Your task to perform on an android device: Open the calendar app, open the side menu, and click the "Day" option Image 0: 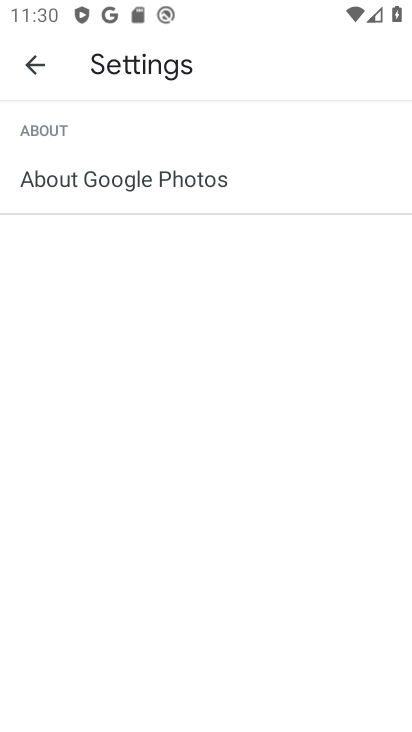
Step 0: press home button
Your task to perform on an android device: Open the calendar app, open the side menu, and click the "Day" option Image 1: 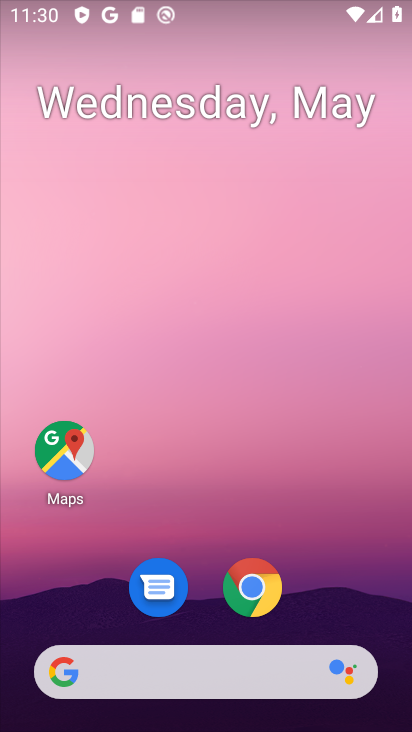
Step 1: drag from (289, 477) to (205, 9)
Your task to perform on an android device: Open the calendar app, open the side menu, and click the "Day" option Image 2: 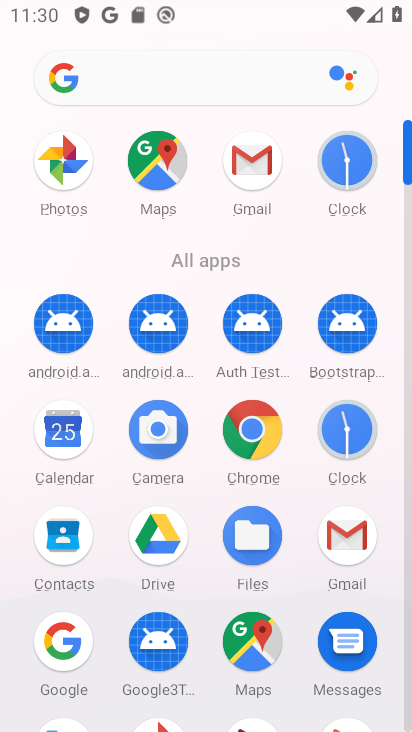
Step 2: click (74, 446)
Your task to perform on an android device: Open the calendar app, open the side menu, and click the "Day" option Image 3: 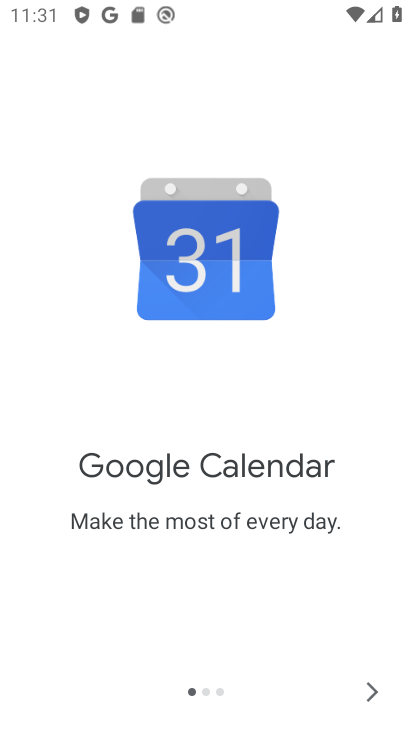
Step 3: press home button
Your task to perform on an android device: Open the calendar app, open the side menu, and click the "Day" option Image 4: 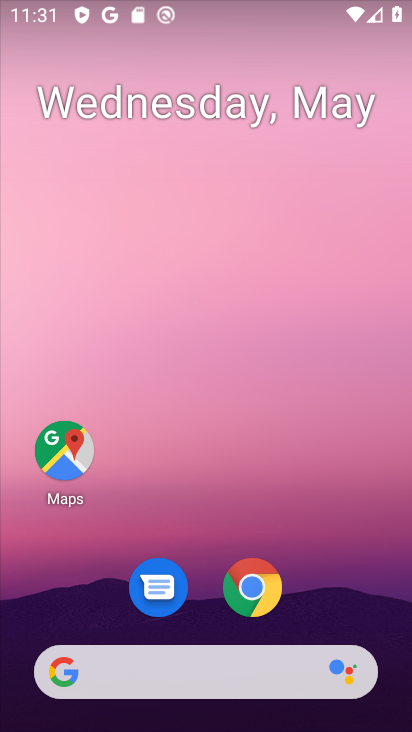
Step 4: drag from (236, 540) to (171, 6)
Your task to perform on an android device: Open the calendar app, open the side menu, and click the "Day" option Image 5: 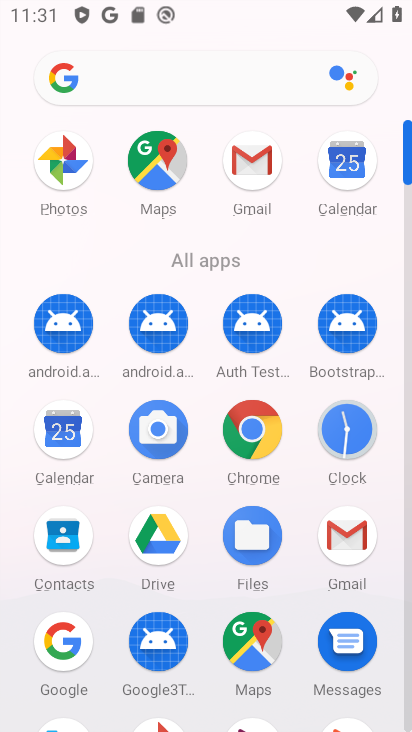
Step 5: click (358, 223)
Your task to perform on an android device: Open the calendar app, open the side menu, and click the "Day" option Image 6: 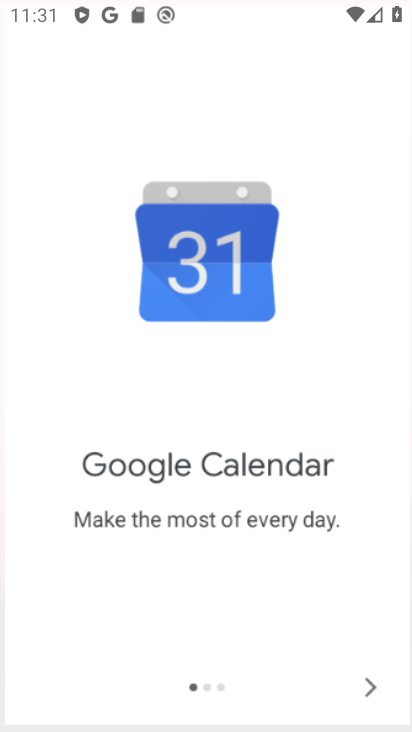
Step 6: click (356, 171)
Your task to perform on an android device: Open the calendar app, open the side menu, and click the "Day" option Image 7: 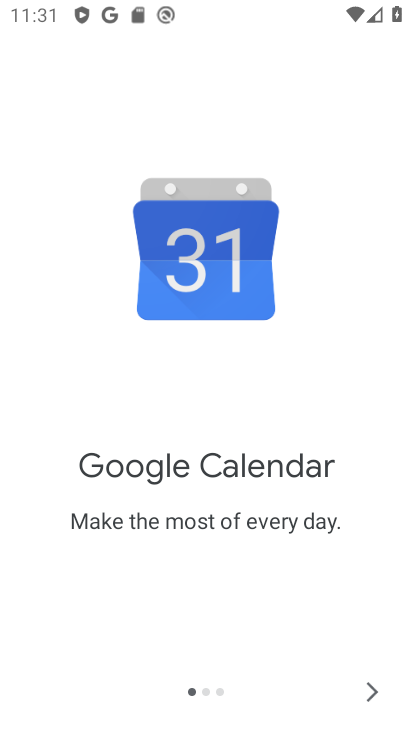
Step 7: click (366, 689)
Your task to perform on an android device: Open the calendar app, open the side menu, and click the "Day" option Image 8: 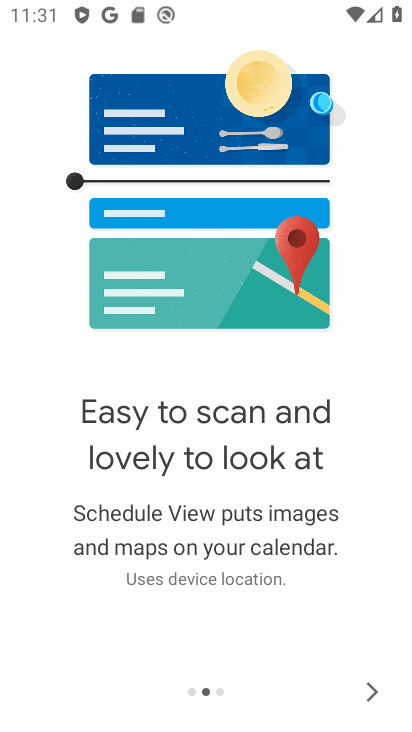
Step 8: click (366, 687)
Your task to perform on an android device: Open the calendar app, open the side menu, and click the "Day" option Image 9: 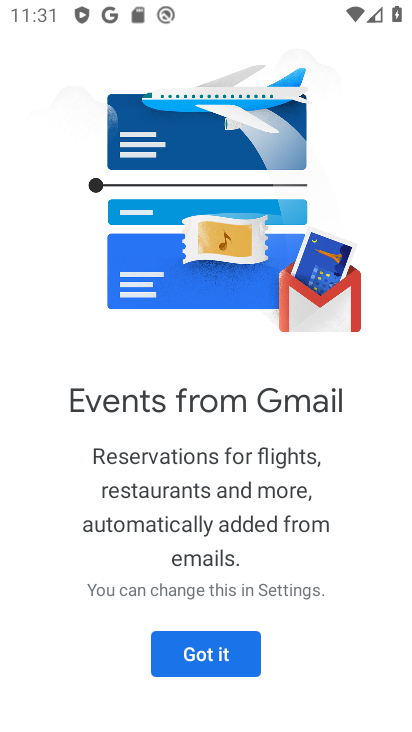
Step 9: click (168, 635)
Your task to perform on an android device: Open the calendar app, open the side menu, and click the "Day" option Image 10: 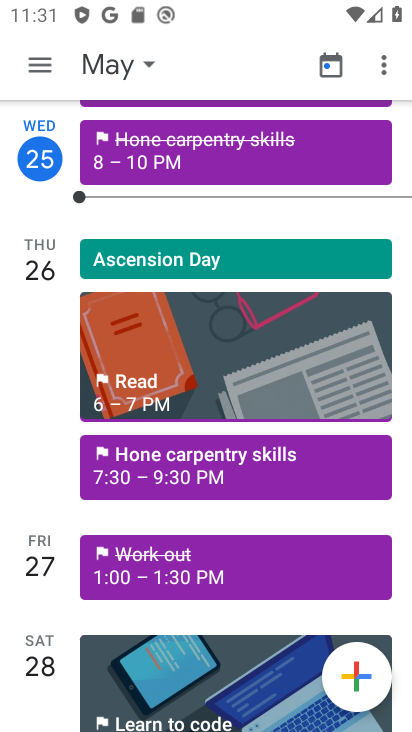
Step 10: click (43, 71)
Your task to perform on an android device: Open the calendar app, open the side menu, and click the "Day" option Image 11: 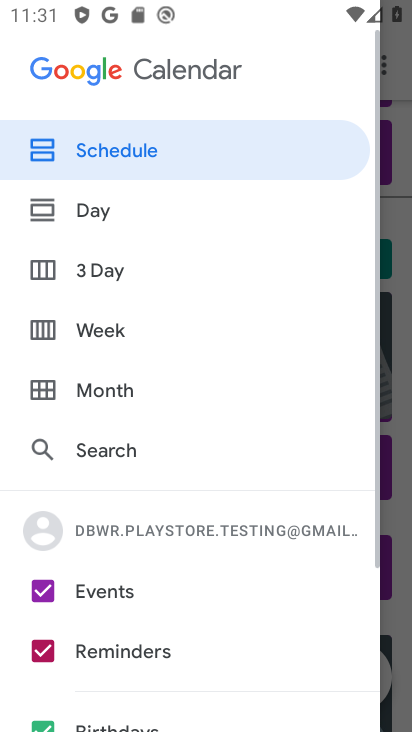
Step 11: click (106, 225)
Your task to perform on an android device: Open the calendar app, open the side menu, and click the "Day" option Image 12: 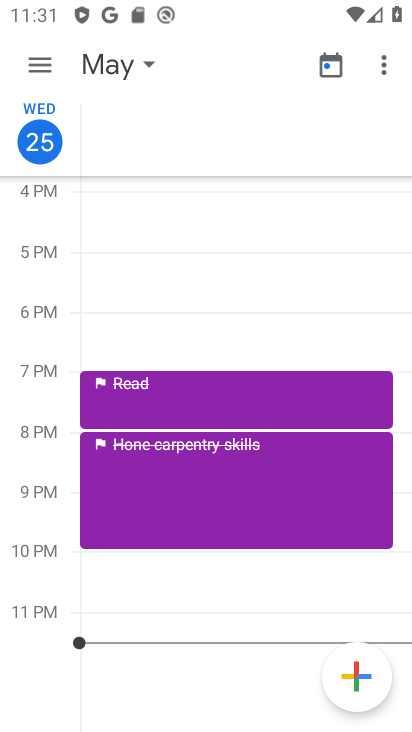
Step 12: task complete